Your task to perform on an android device: Go to Reddit.com Image 0: 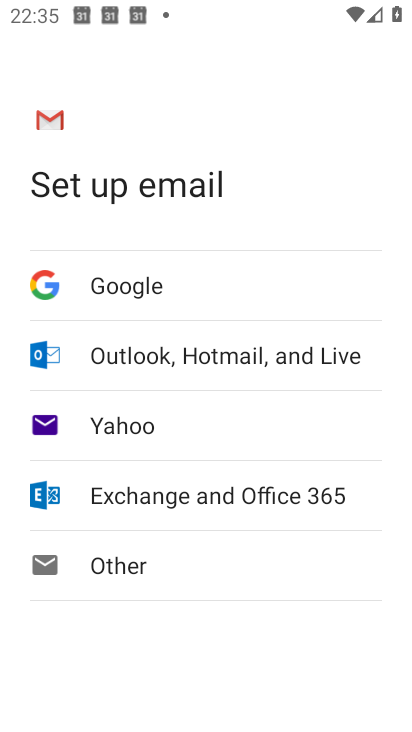
Step 0: press home button
Your task to perform on an android device: Go to Reddit.com Image 1: 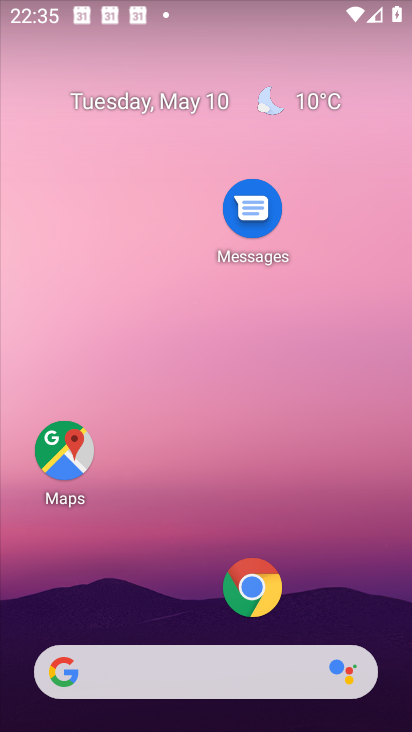
Step 1: click (271, 596)
Your task to perform on an android device: Go to Reddit.com Image 2: 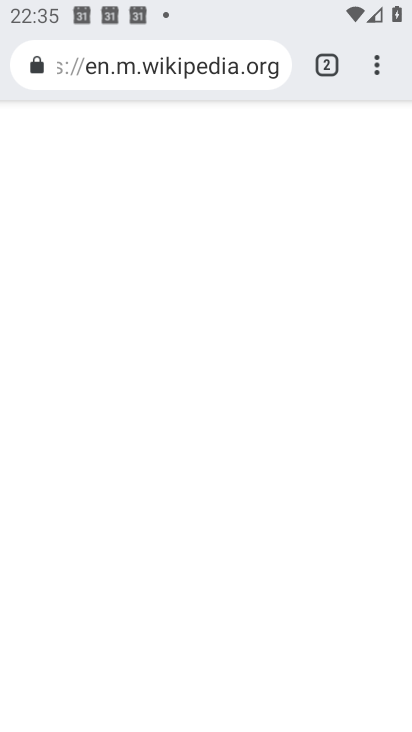
Step 2: click (174, 62)
Your task to perform on an android device: Go to Reddit.com Image 3: 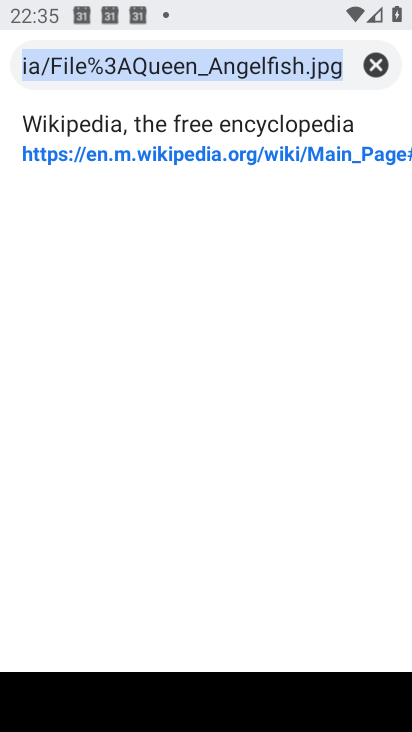
Step 3: type "Reddit.com"
Your task to perform on an android device: Go to Reddit.com Image 4: 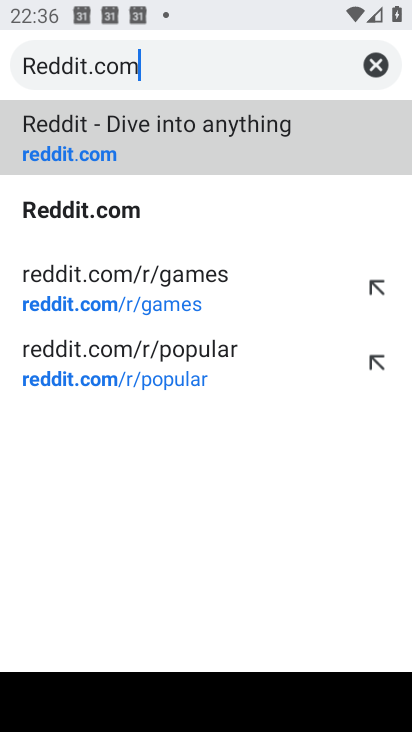
Step 4: click (126, 147)
Your task to perform on an android device: Go to Reddit.com Image 5: 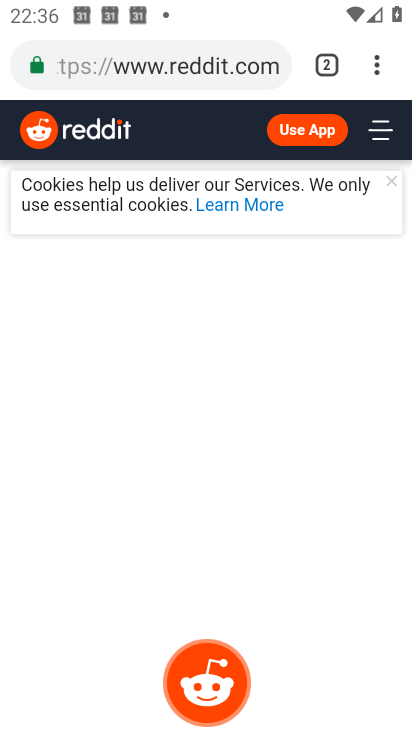
Step 5: task complete